Your task to perform on an android device: Show me popular games on the Play Store Image 0: 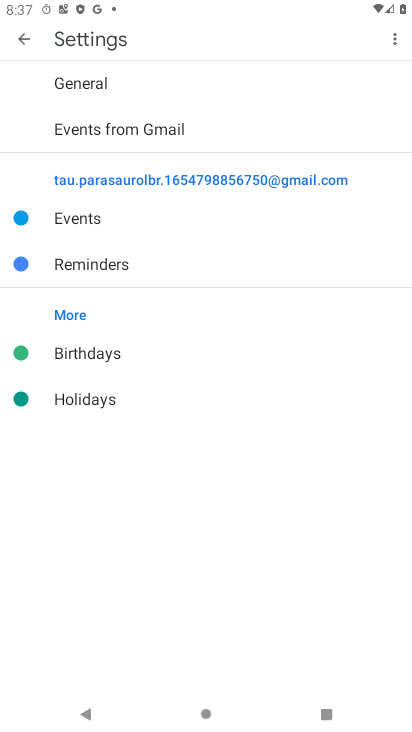
Step 0: click (17, 37)
Your task to perform on an android device: Show me popular games on the Play Store Image 1: 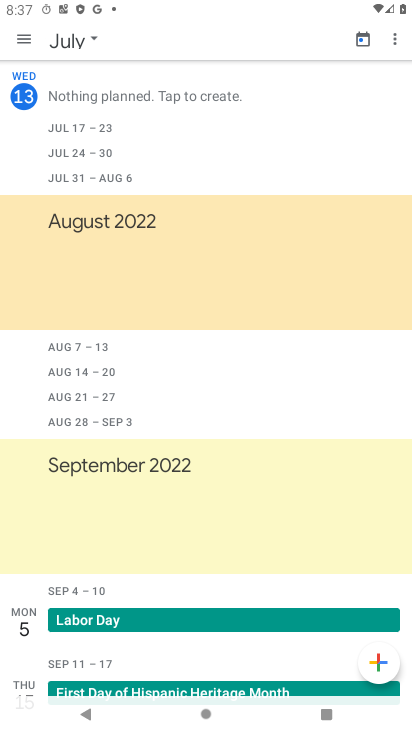
Step 1: press back button
Your task to perform on an android device: Show me popular games on the Play Store Image 2: 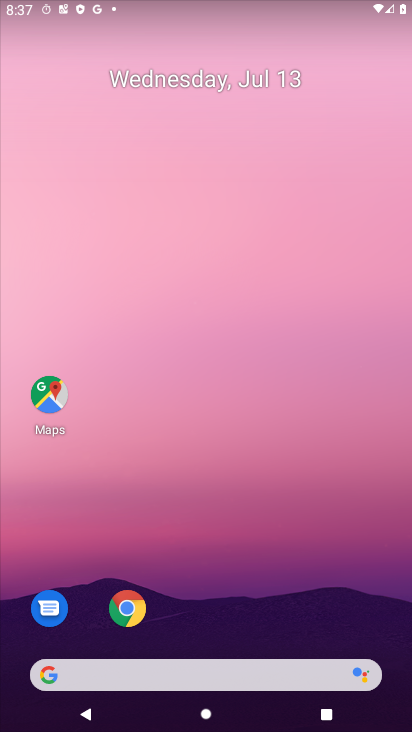
Step 2: drag from (296, 647) to (257, 159)
Your task to perform on an android device: Show me popular games on the Play Store Image 3: 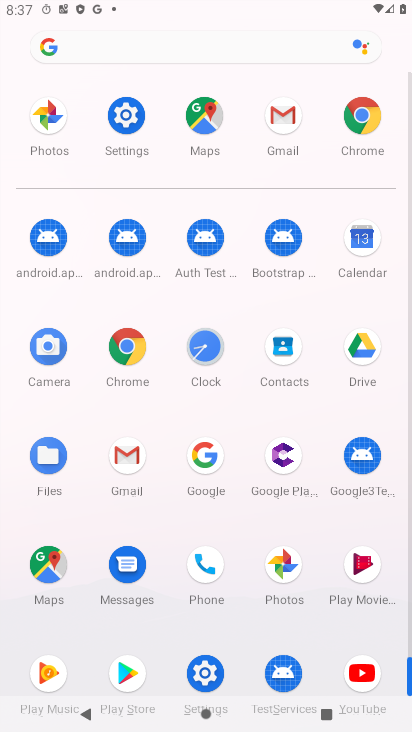
Step 3: click (117, 671)
Your task to perform on an android device: Show me popular games on the Play Store Image 4: 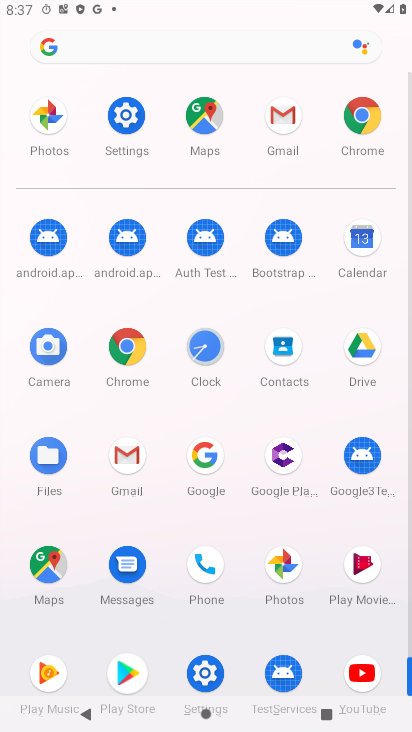
Step 4: click (122, 670)
Your task to perform on an android device: Show me popular games on the Play Store Image 5: 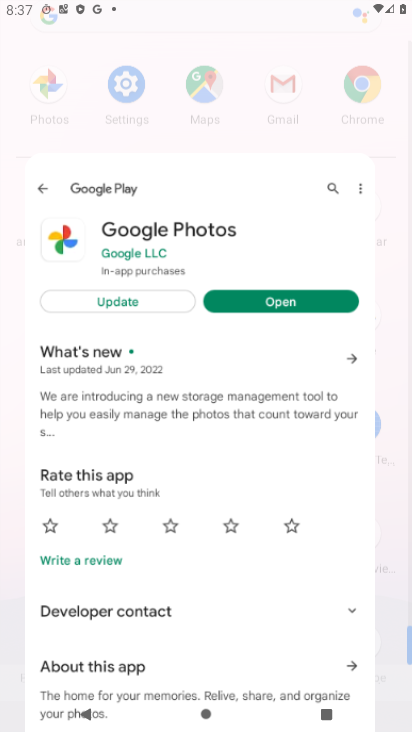
Step 5: click (123, 670)
Your task to perform on an android device: Show me popular games on the Play Store Image 6: 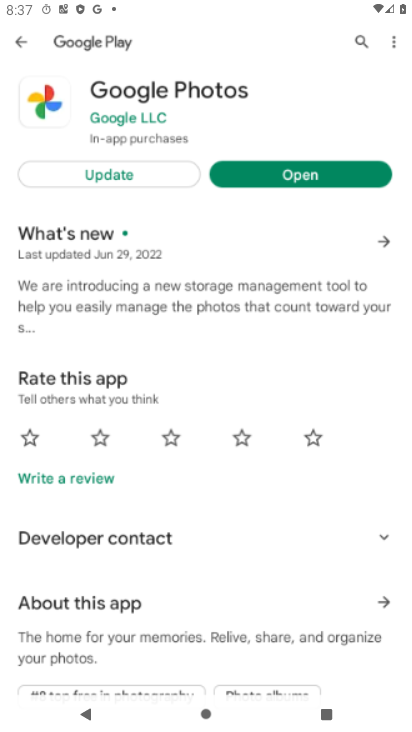
Step 6: click (125, 670)
Your task to perform on an android device: Show me popular games on the Play Store Image 7: 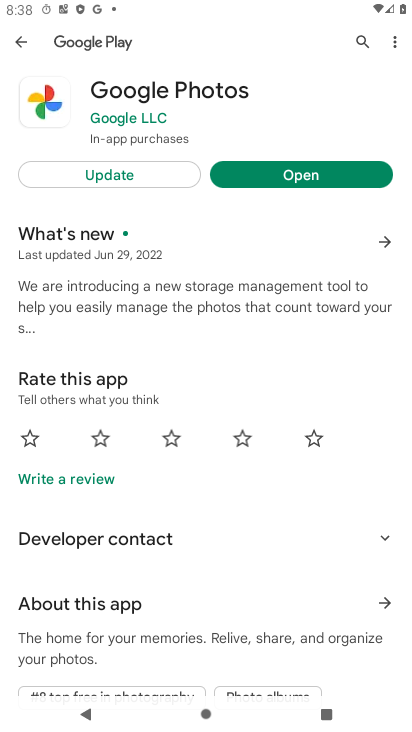
Step 7: click (128, 670)
Your task to perform on an android device: Show me popular games on the Play Store Image 8: 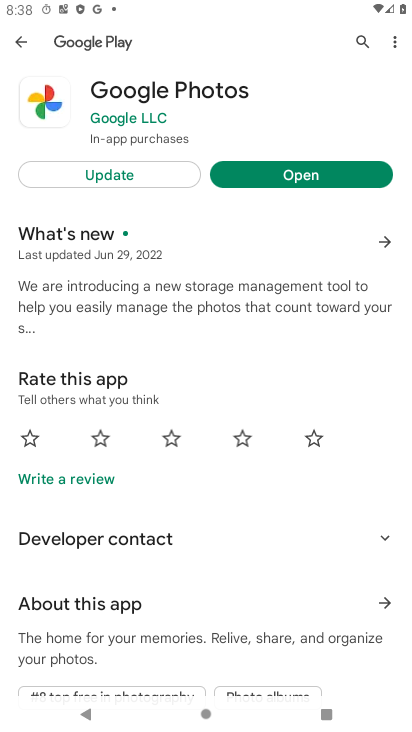
Step 8: click (15, 34)
Your task to perform on an android device: Show me popular games on the Play Store Image 9: 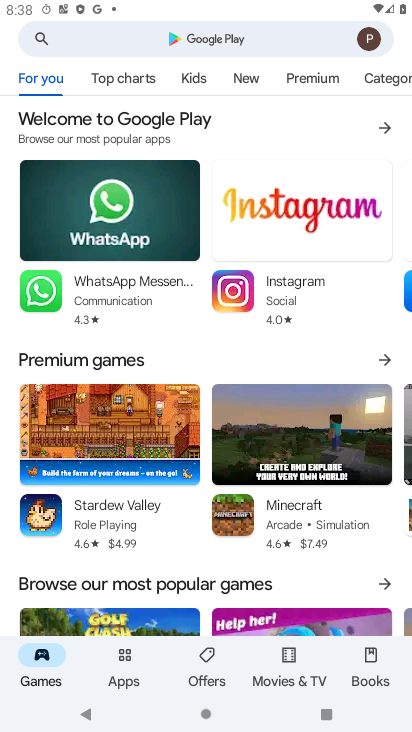
Step 9: click (257, 32)
Your task to perform on an android device: Show me popular games on the Play Store Image 10: 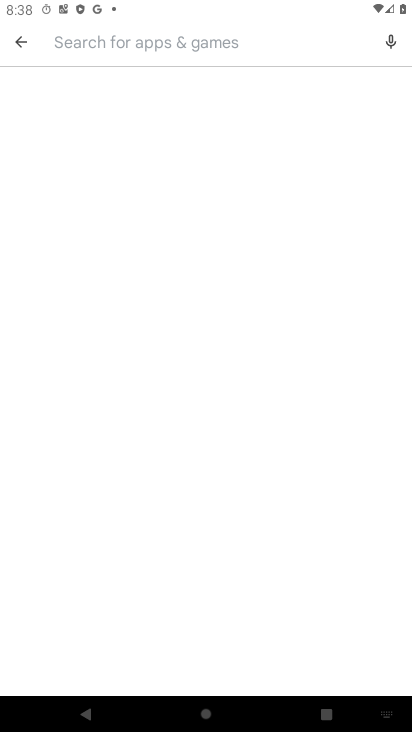
Step 10: type "popular games"
Your task to perform on an android device: Show me popular games on the Play Store Image 11: 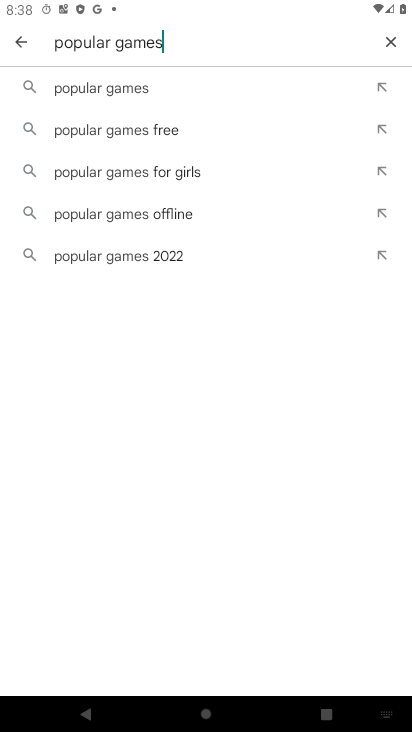
Step 11: click (109, 93)
Your task to perform on an android device: Show me popular games on the Play Store Image 12: 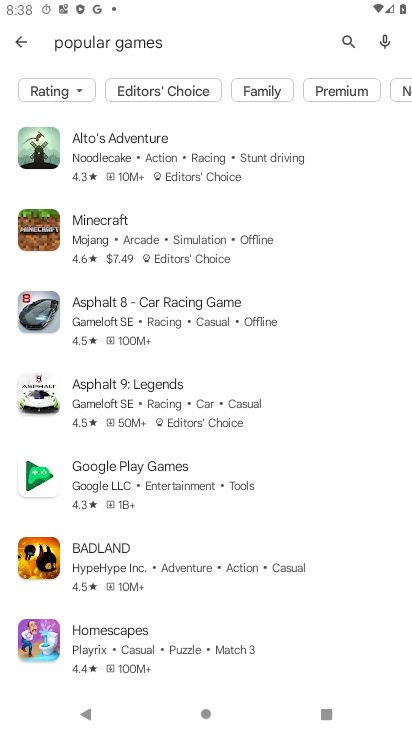
Step 12: task complete